Your task to perform on an android device: check data usage Image 0: 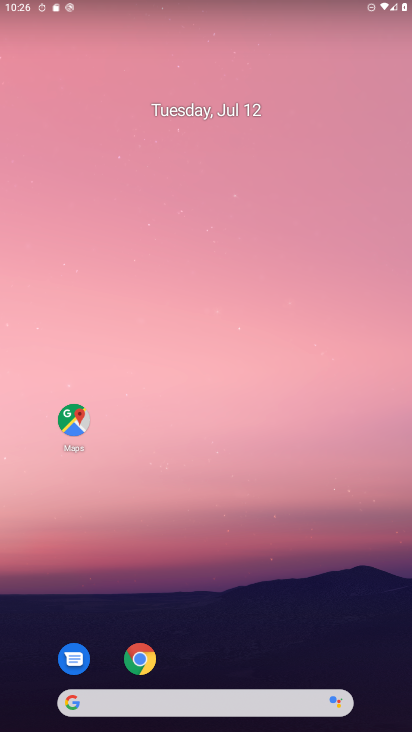
Step 0: drag from (200, 709) to (200, 164)
Your task to perform on an android device: check data usage Image 1: 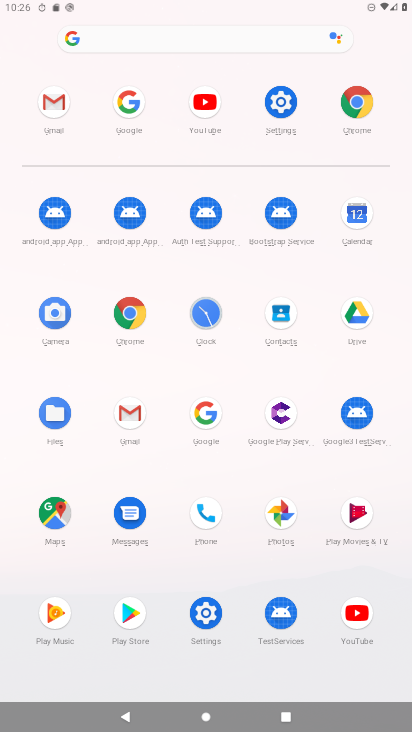
Step 1: click (283, 98)
Your task to perform on an android device: check data usage Image 2: 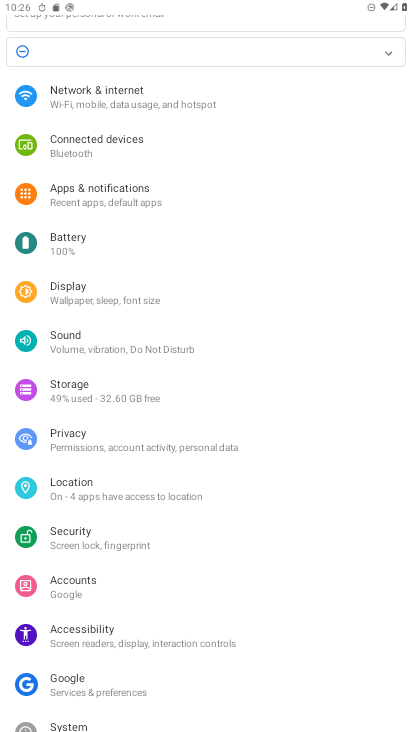
Step 2: click (67, 90)
Your task to perform on an android device: check data usage Image 3: 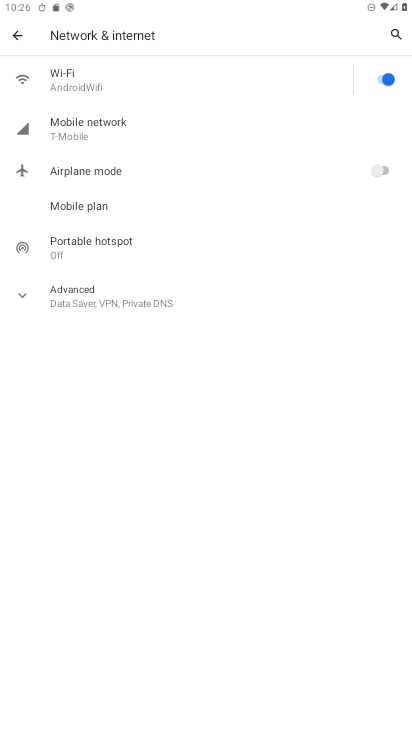
Step 3: click (85, 125)
Your task to perform on an android device: check data usage Image 4: 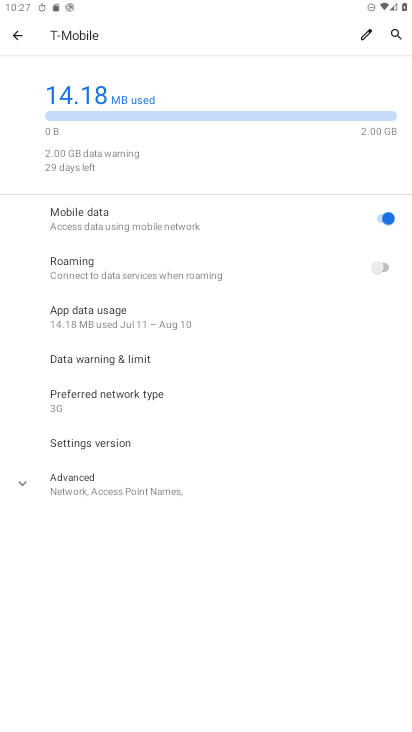
Step 4: click (92, 313)
Your task to perform on an android device: check data usage Image 5: 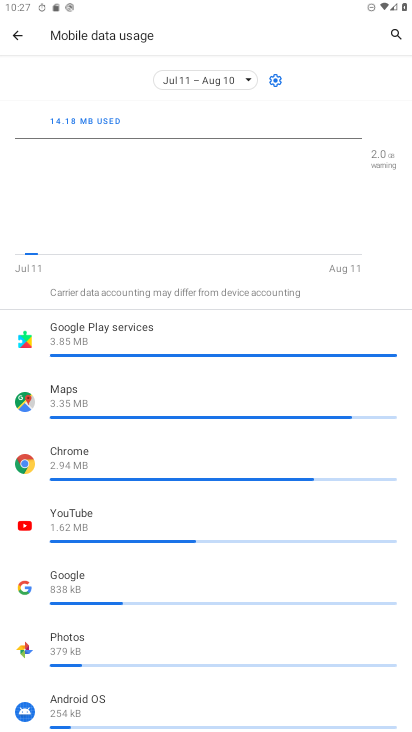
Step 5: task complete